Your task to perform on an android device: search for starred emails in the gmail app Image 0: 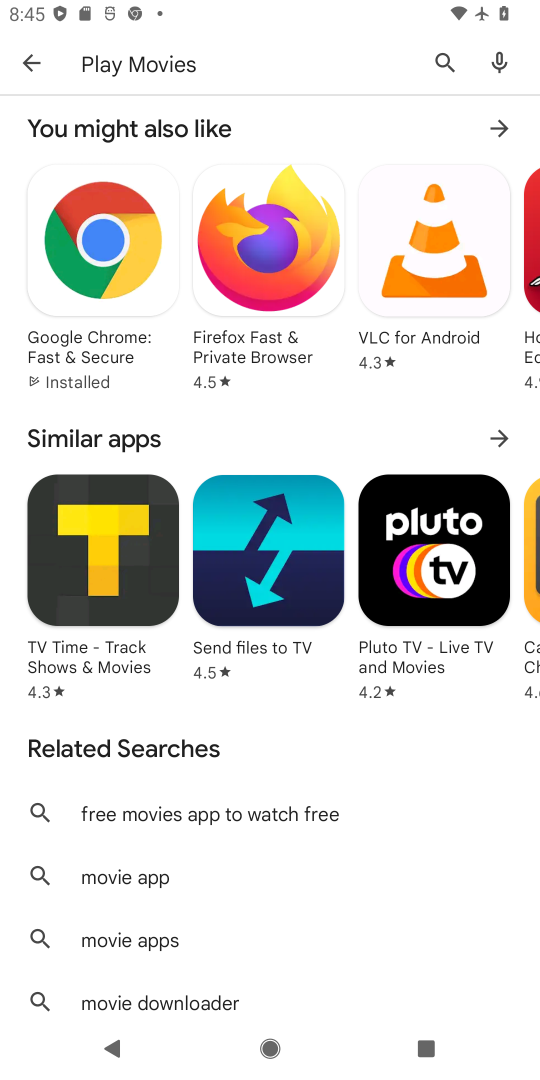
Step 0: press home button
Your task to perform on an android device: search for starred emails in the gmail app Image 1: 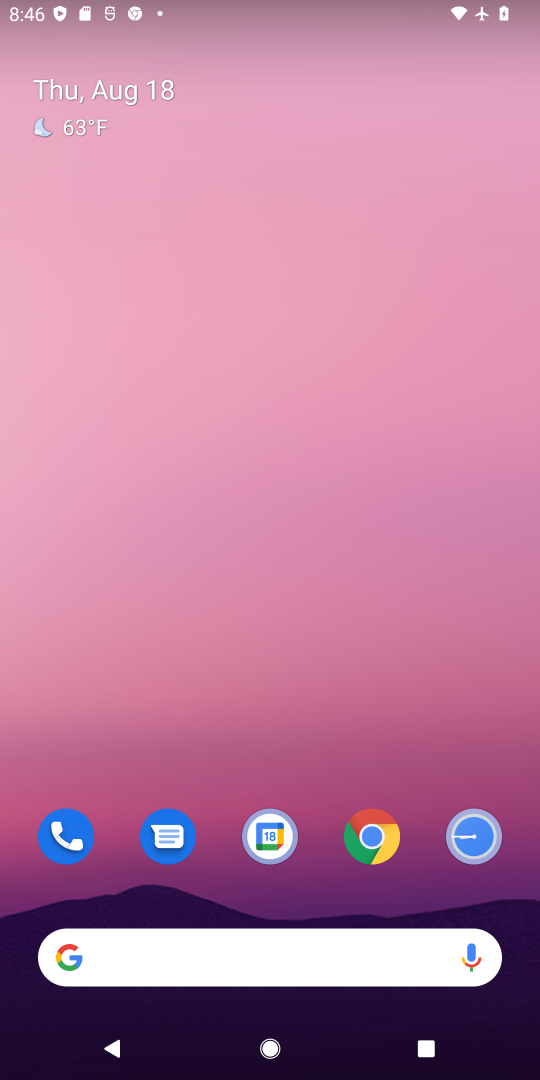
Step 1: drag from (290, 786) to (292, 57)
Your task to perform on an android device: search for starred emails in the gmail app Image 2: 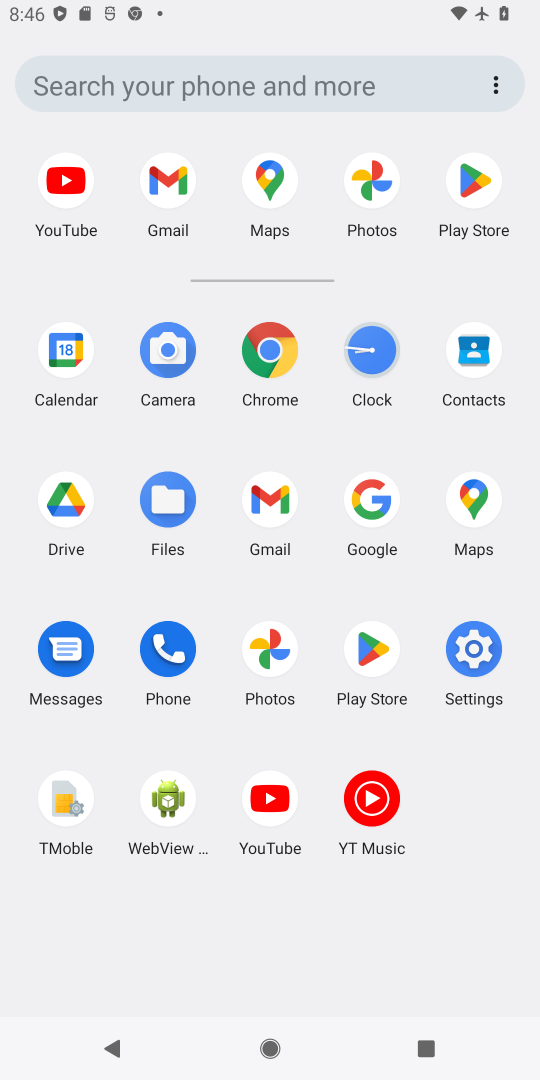
Step 2: click (272, 507)
Your task to perform on an android device: search for starred emails in the gmail app Image 3: 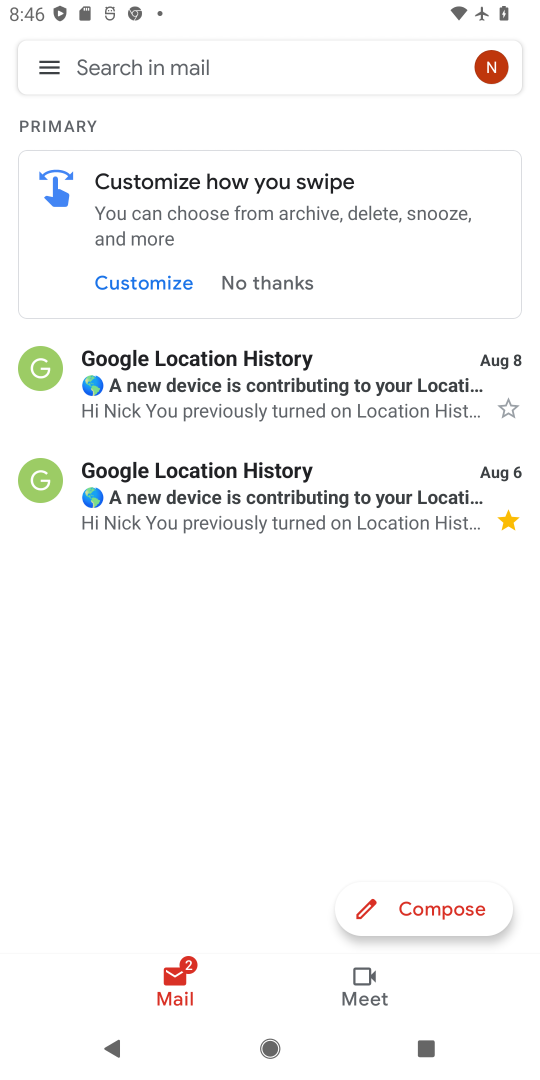
Step 3: click (31, 86)
Your task to perform on an android device: search for starred emails in the gmail app Image 4: 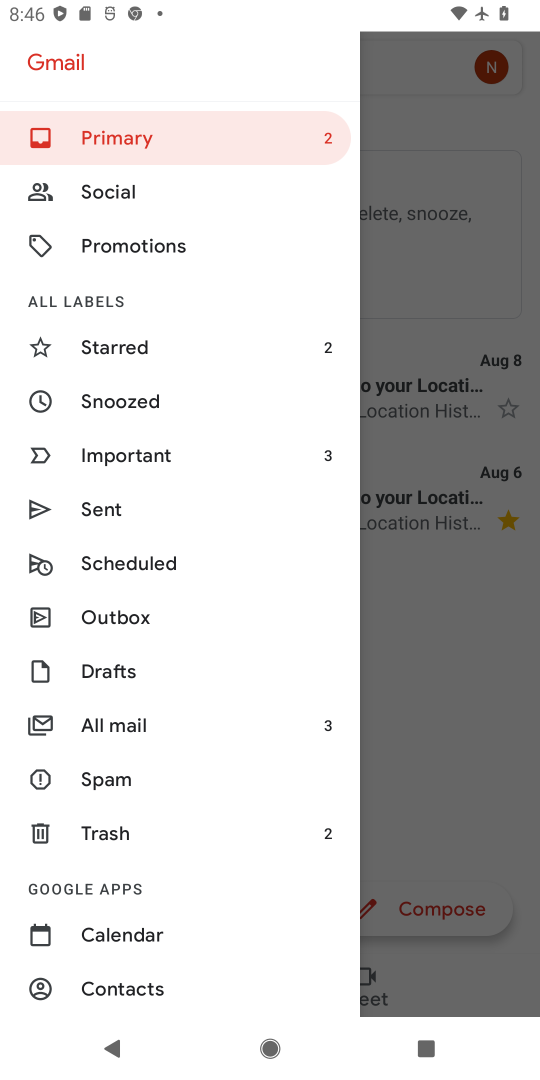
Step 4: click (106, 329)
Your task to perform on an android device: search for starred emails in the gmail app Image 5: 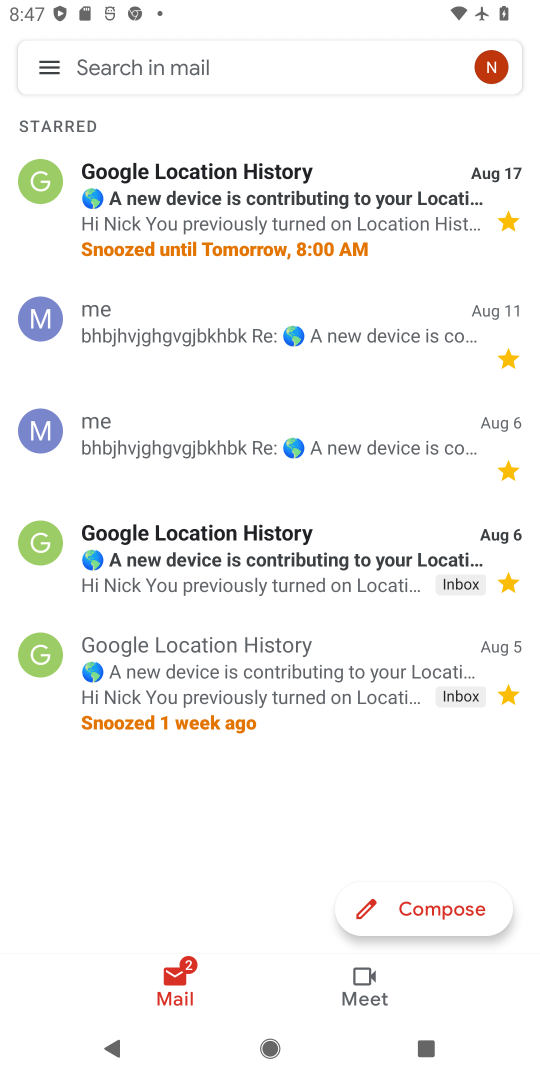
Step 5: task complete